Your task to perform on an android device: manage bookmarks in the chrome app Image 0: 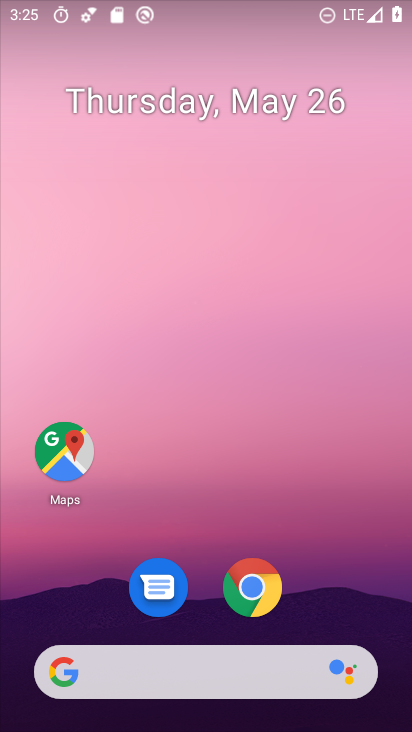
Step 0: drag from (338, 508) to (363, 136)
Your task to perform on an android device: manage bookmarks in the chrome app Image 1: 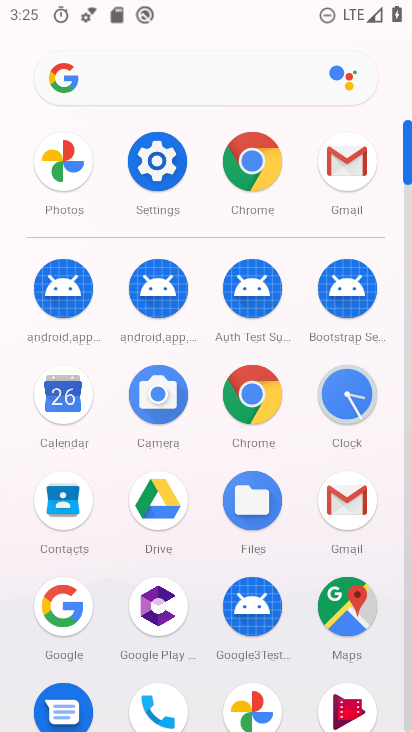
Step 1: click (258, 147)
Your task to perform on an android device: manage bookmarks in the chrome app Image 2: 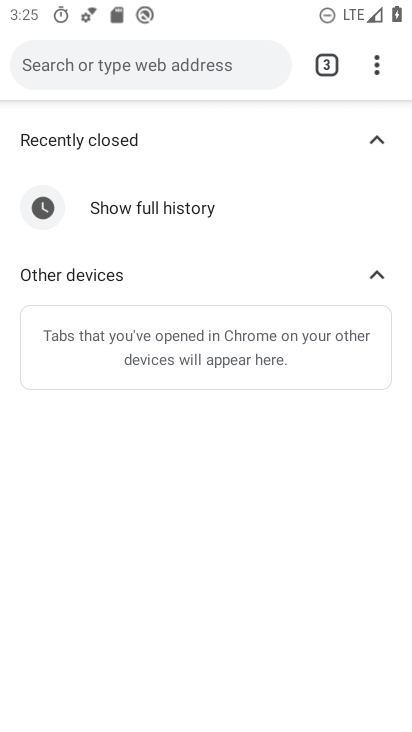
Step 2: task complete